Your task to perform on an android device: open app "Messages" (install if not already installed) and go to login screen Image 0: 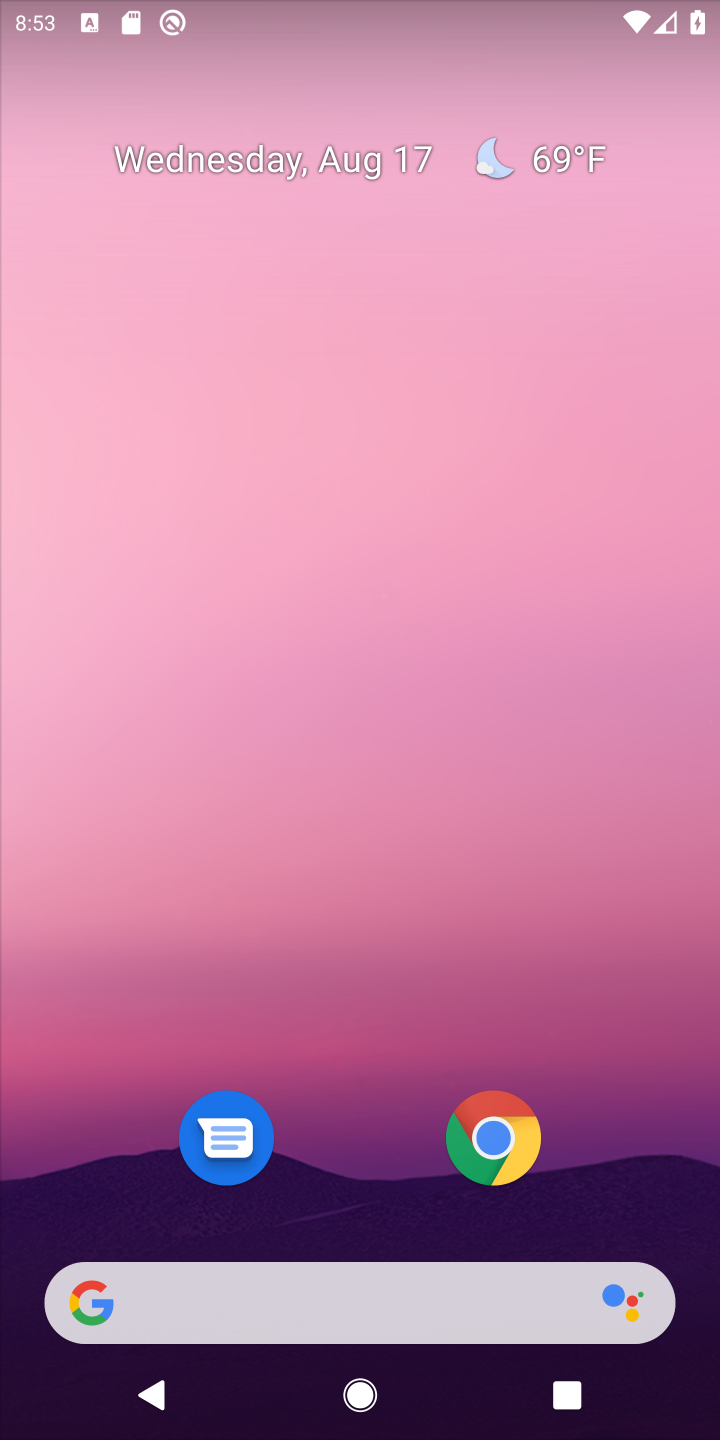
Step 0: drag from (255, 1056) to (301, 476)
Your task to perform on an android device: open app "Messages" (install if not already installed) and go to login screen Image 1: 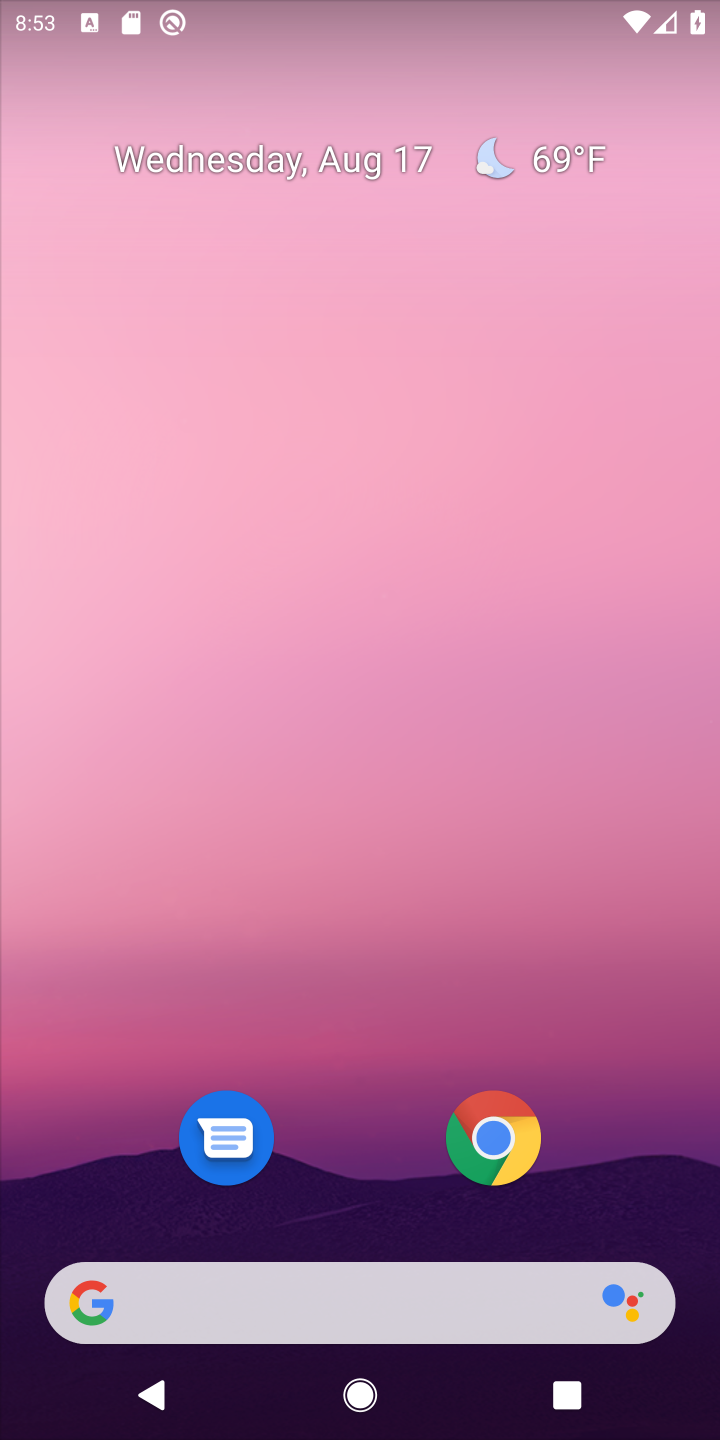
Step 1: drag from (332, 914) to (357, 118)
Your task to perform on an android device: open app "Messages" (install if not already installed) and go to login screen Image 2: 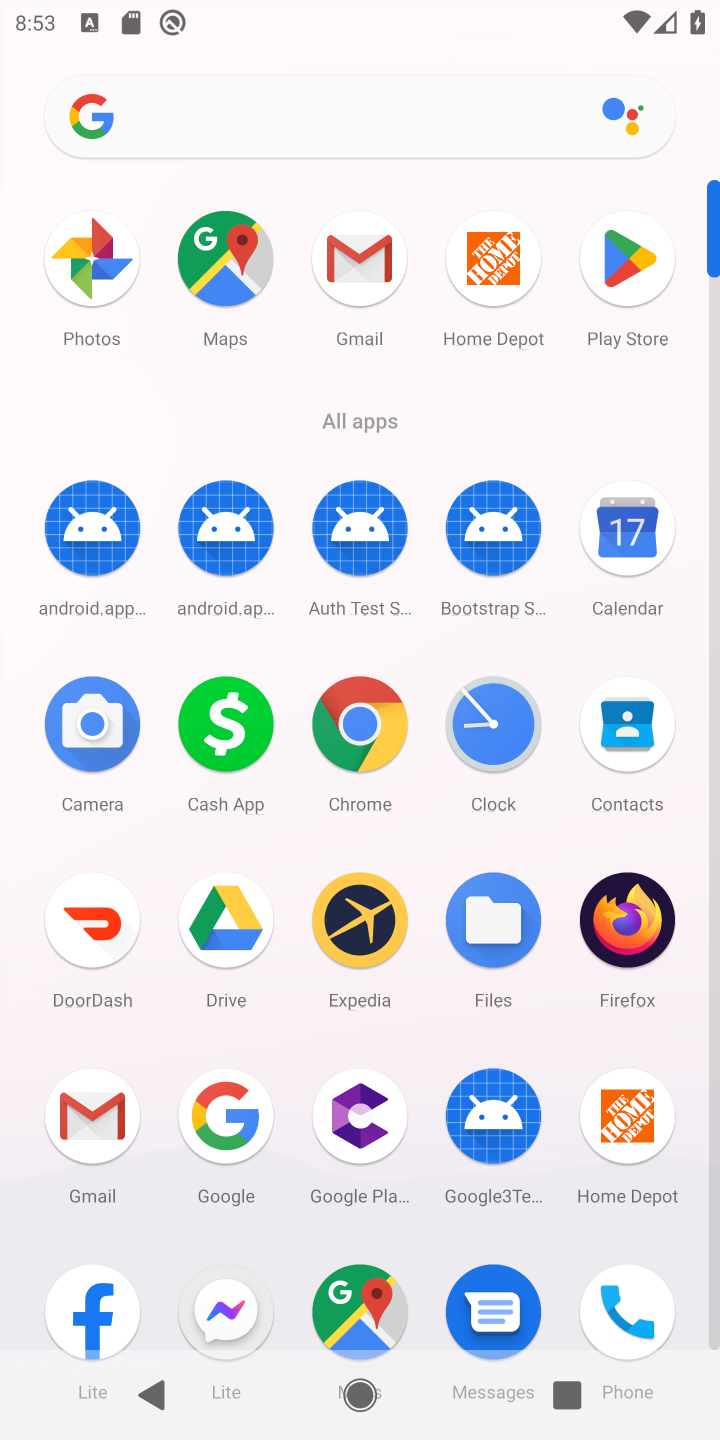
Step 2: click (617, 284)
Your task to perform on an android device: open app "Messages" (install if not already installed) and go to login screen Image 3: 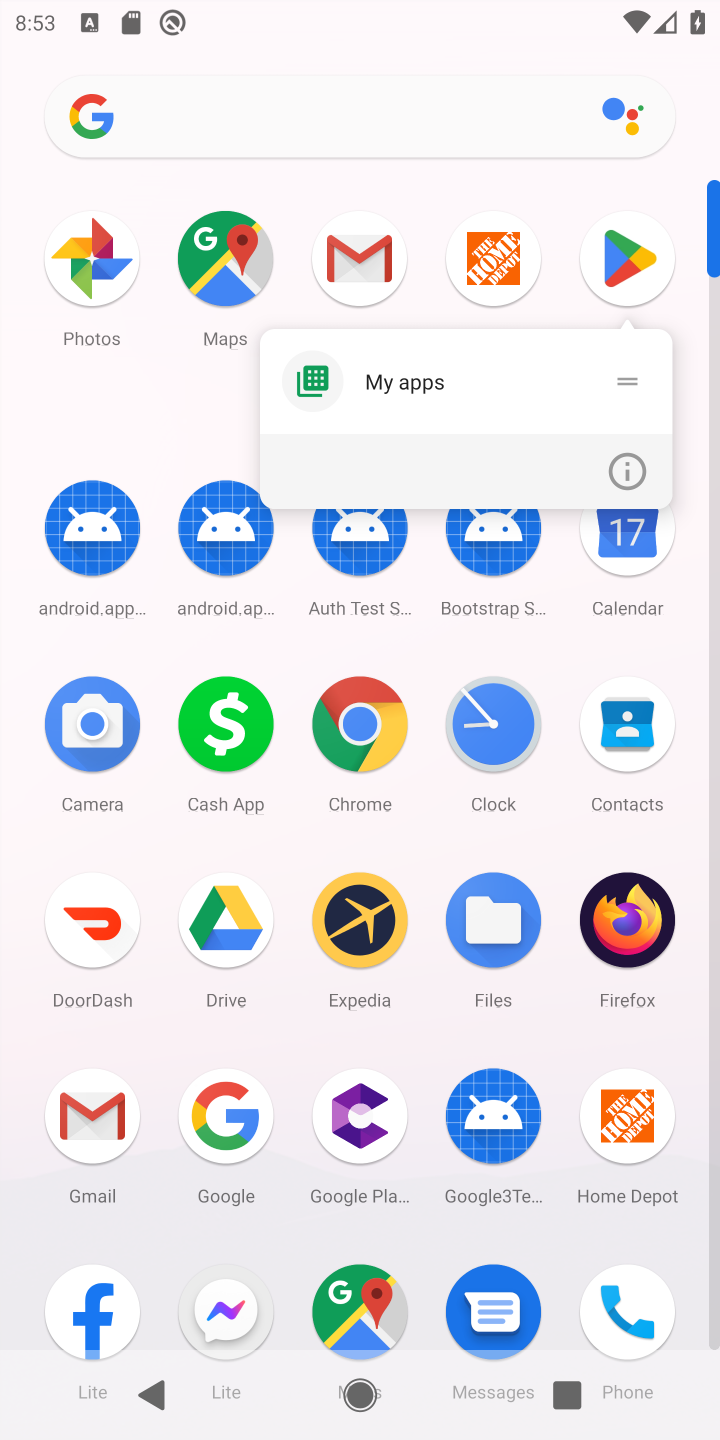
Step 3: click (617, 294)
Your task to perform on an android device: open app "Messages" (install if not already installed) and go to login screen Image 4: 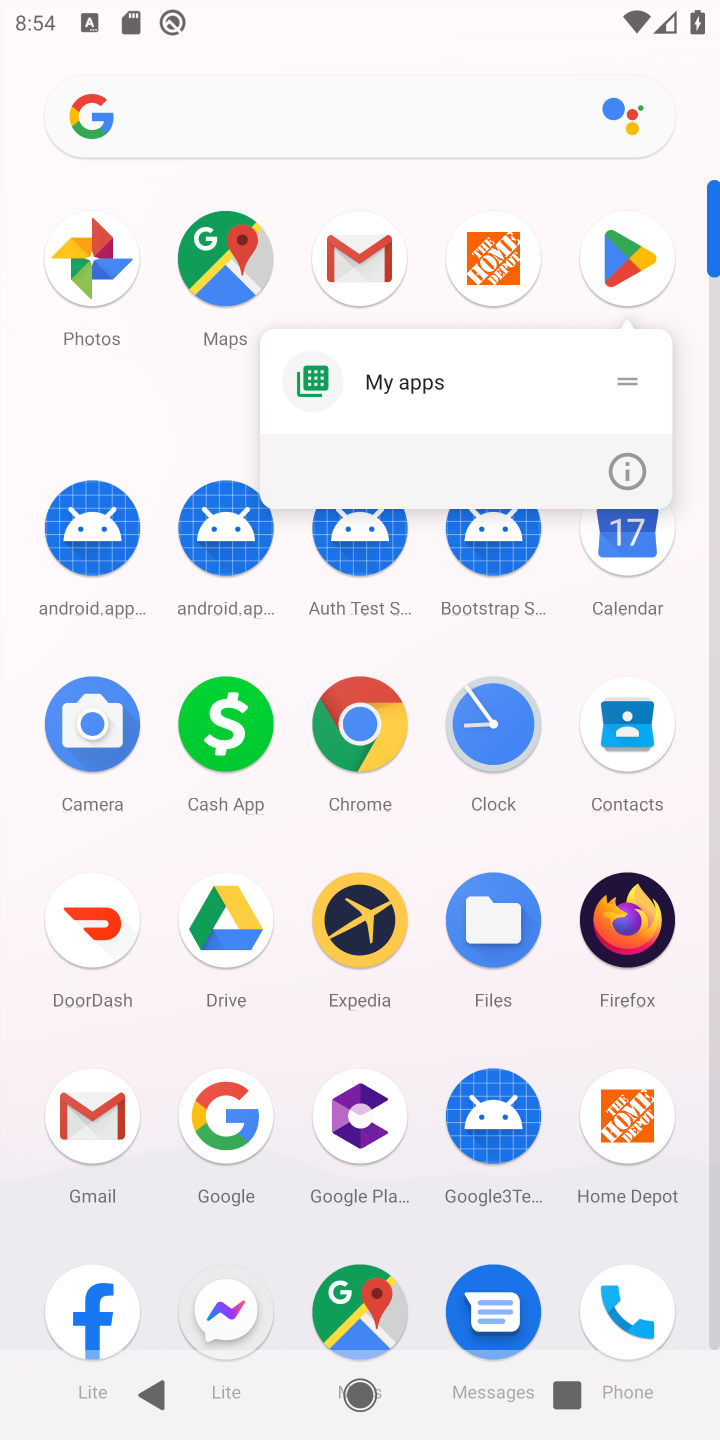
Step 4: click (617, 294)
Your task to perform on an android device: open app "Messages" (install if not already installed) and go to login screen Image 5: 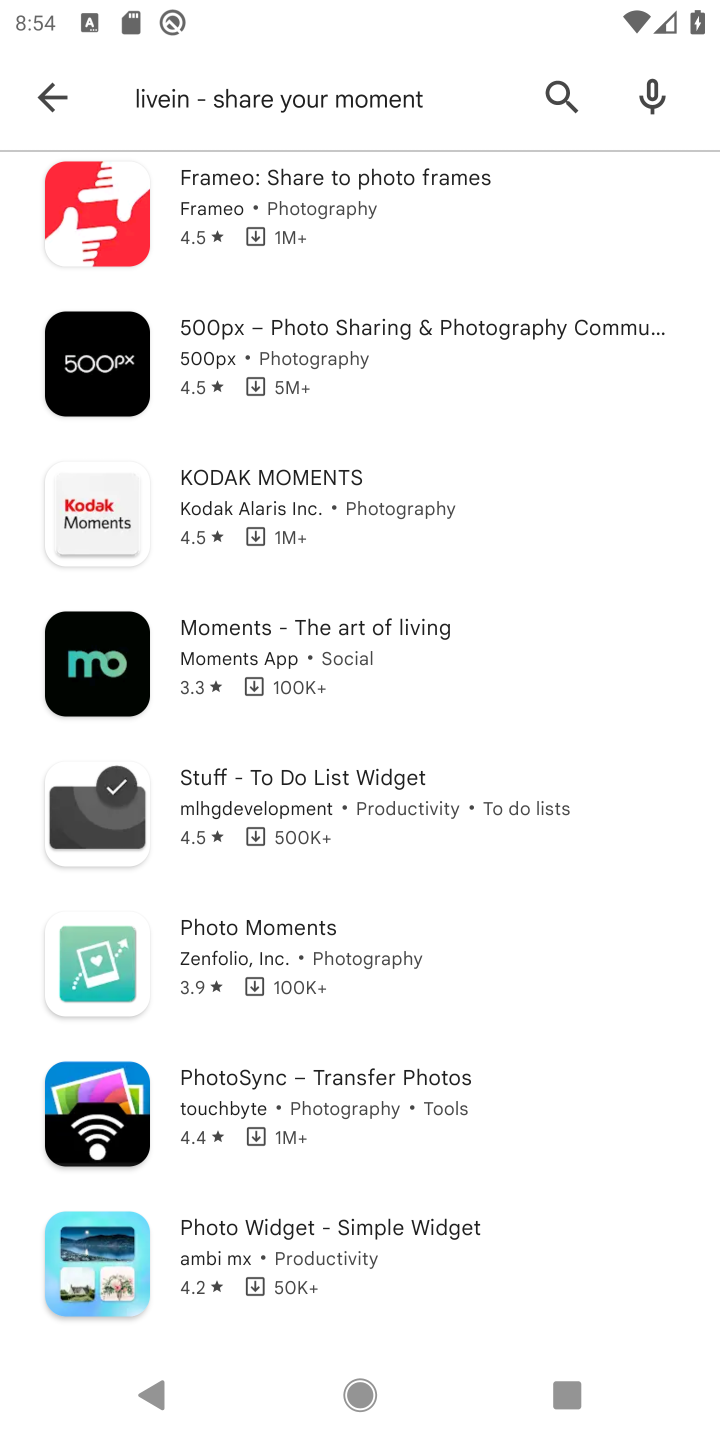
Step 5: click (59, 82)
Your task to perform on an android device: open app "Messages" (install if not already installed) and go to login screen Image 6: 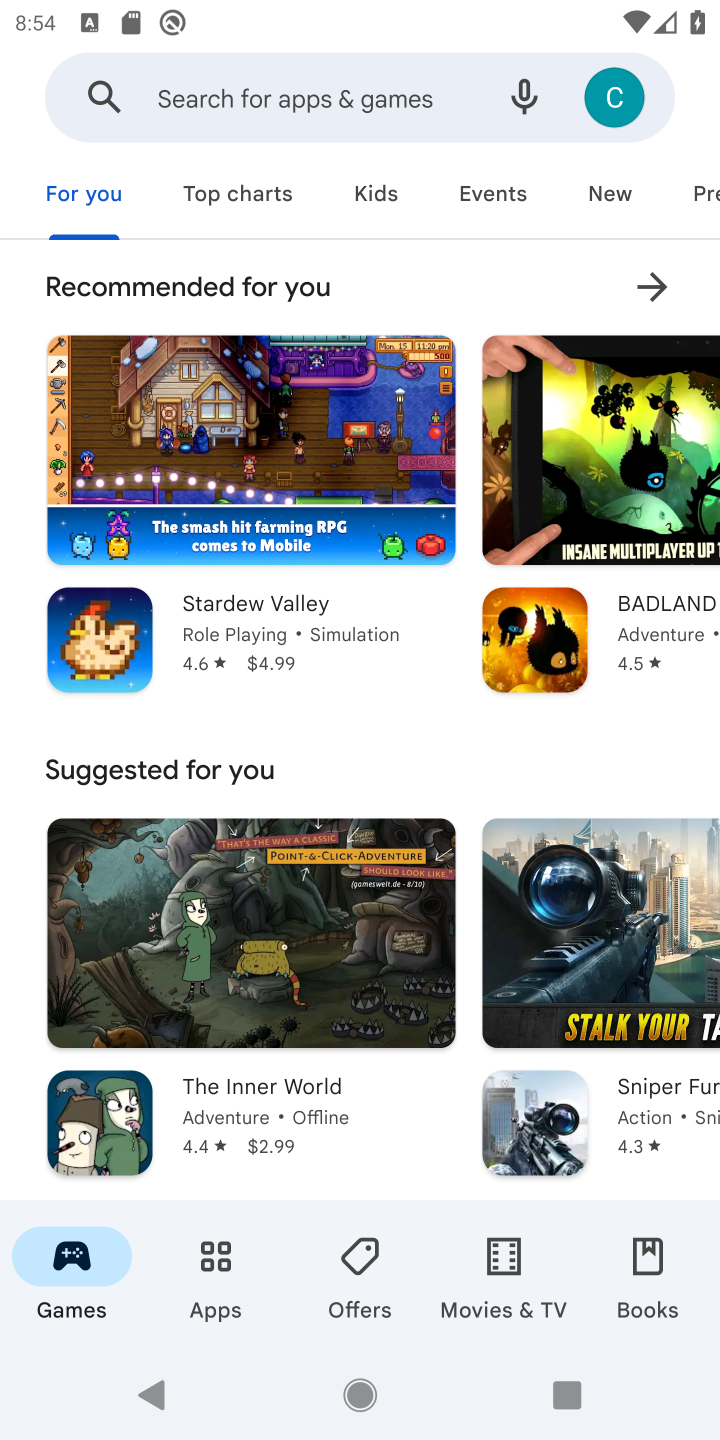
Step 6: click (379, 86)
Your task to perform on an android device: open app "Messages" (install if not already installed) and go to login screen Image 7: 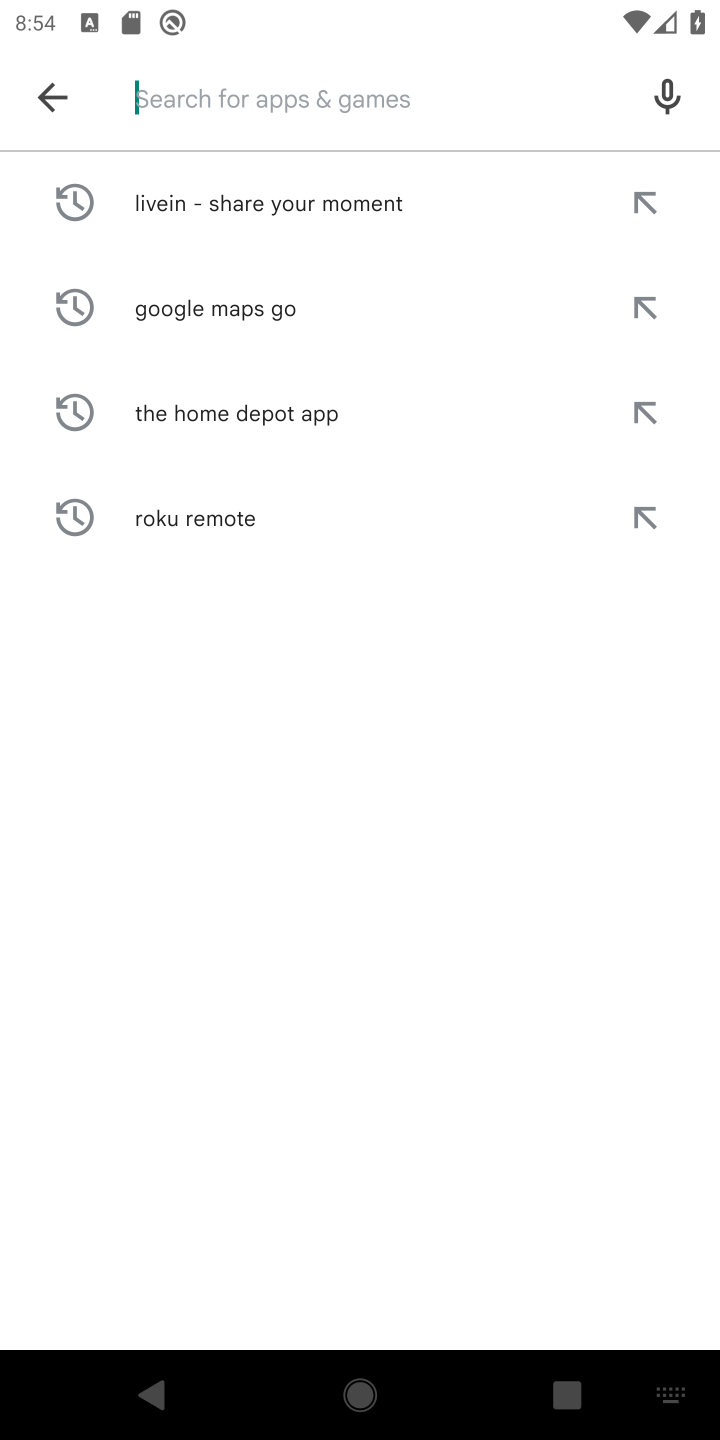
Step 7: type "Messages "
Your task to perform on an android device: open app "Messages" (install if not already installed) and go to login screen Image 8: 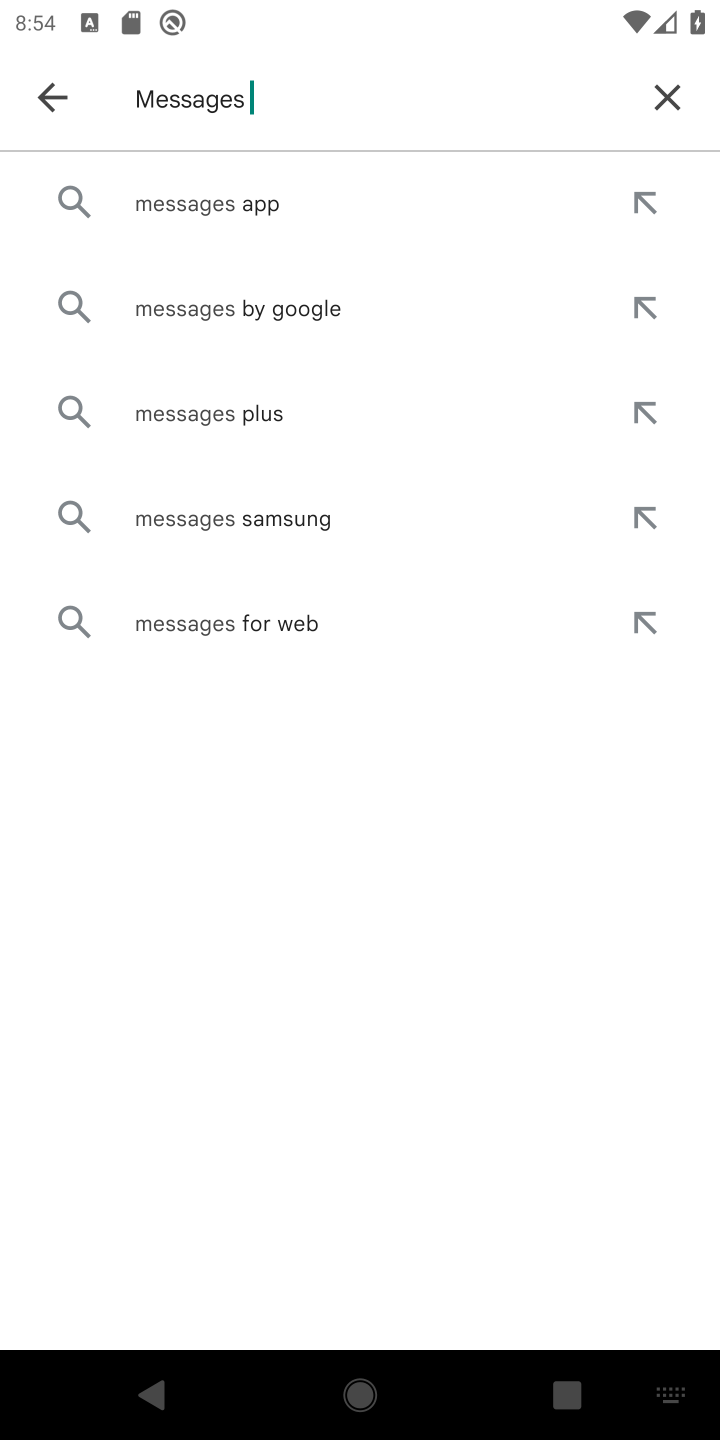
Step 8: click (306, 212)
Your task to perform on an android device: open app "Messages" (install if not already installed) and go to login screen Image 9: 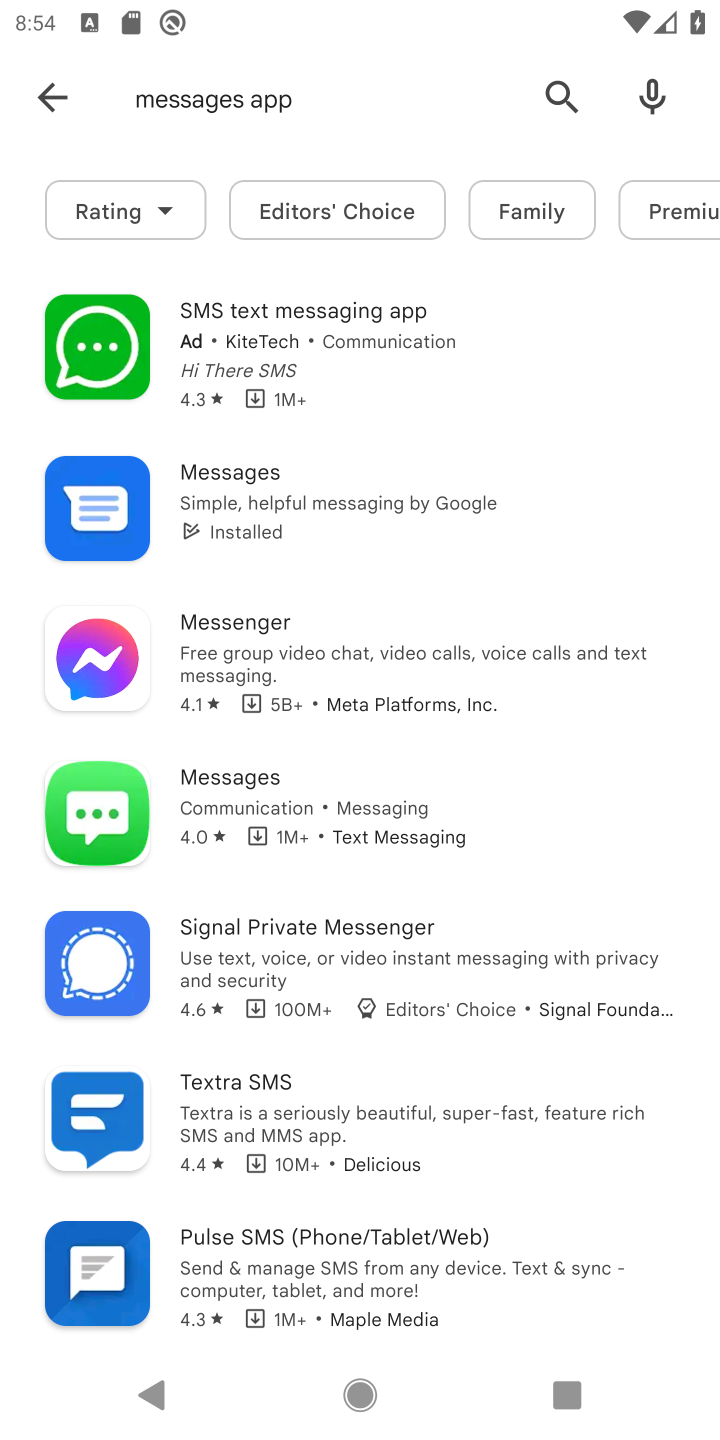
Step 9: click (310, 493)
Your task to perform on an android device: open app "Messages" (install if not already installed) and go to login screen Image 10: 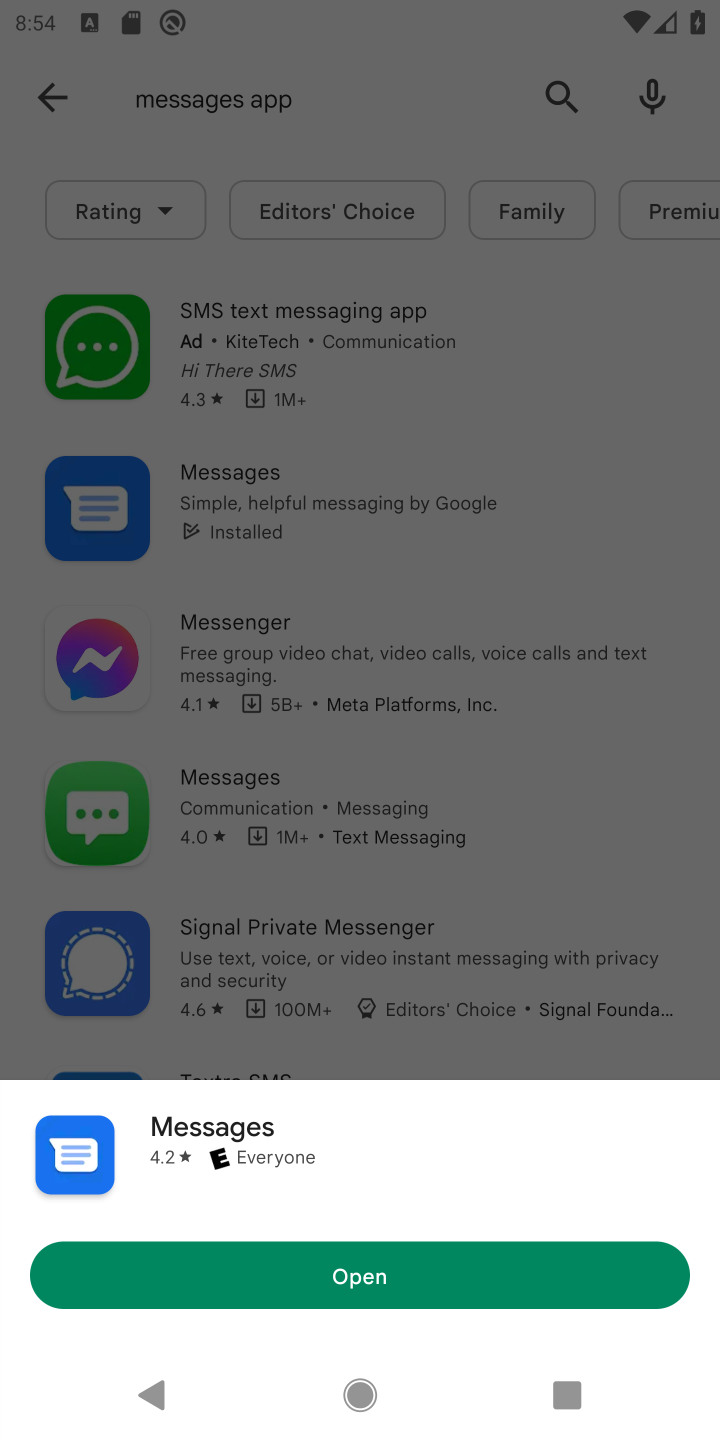
Step 10: click (378, 1254)
Your task to perform on an android device: open app "Messages" (install if not already installed) and go to login screen Image 11: 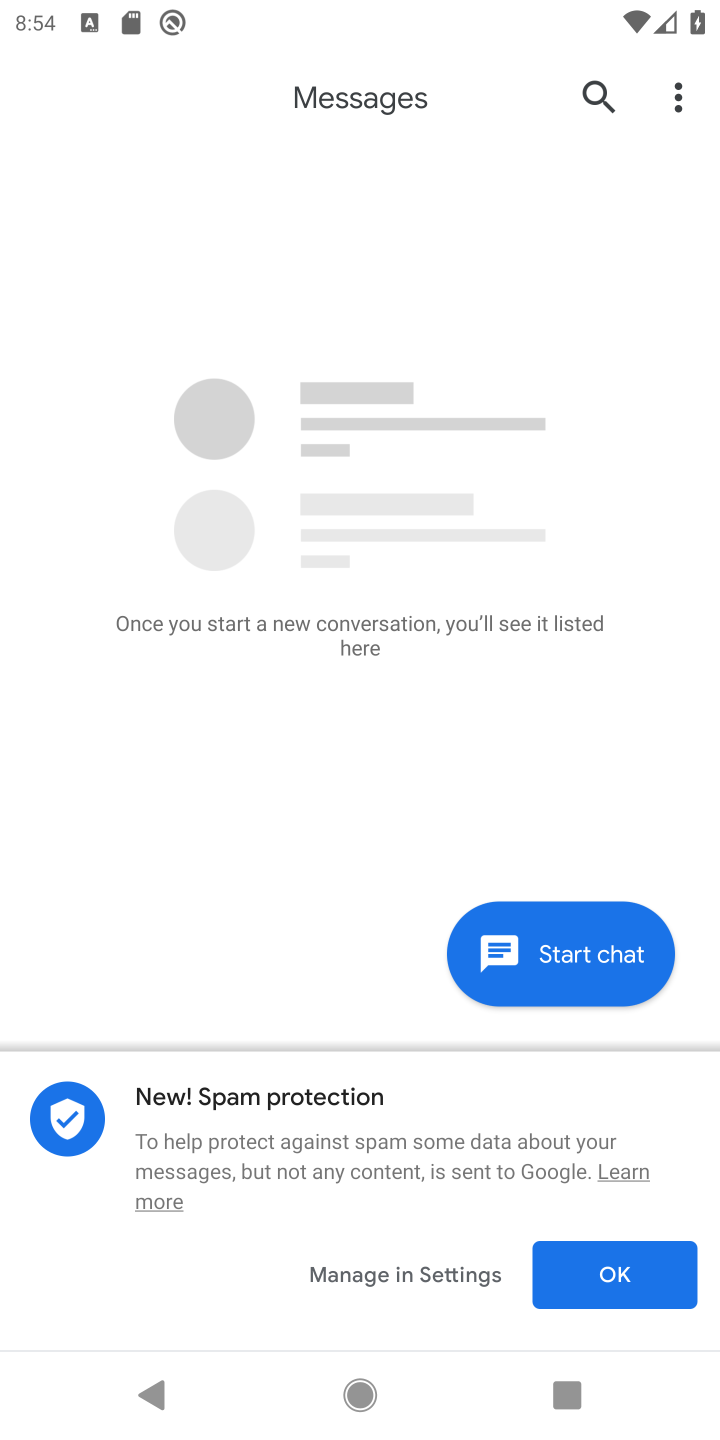
Step 11: task complete